Your task to perform on an android device: open chrome and create a bookmark for the current page Image 0: 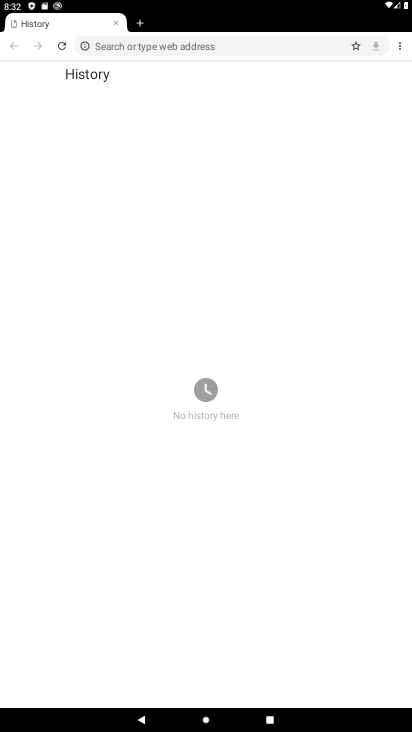
Step 0: drag from (203, 572) to (240, 447)
Your task to perform on an android device: open chrome and create a bookmark for the current page Image 1: 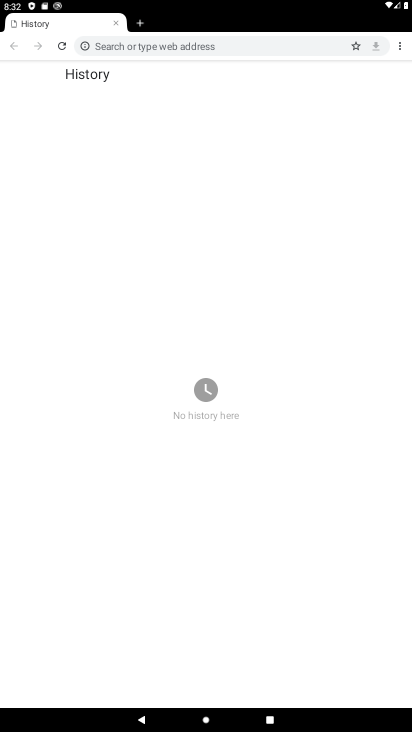
Step 1: press home button
Your task to perform on an android device: open chrome and create a bookmark for the current page Image 2: 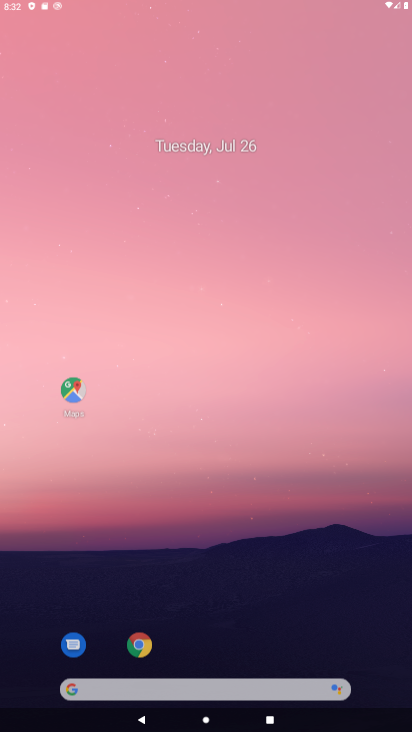
Step 2: drag from (203, 423) to (186, 180)
Your task to perform on an android device: open chrome and create a bookmark for the current page Image 3: 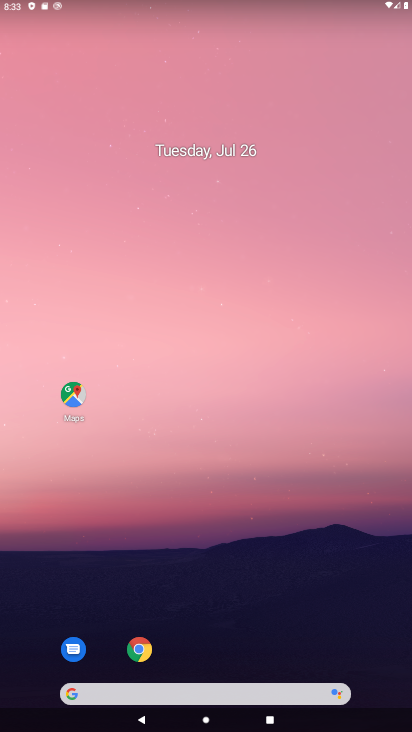
Step 3: drag from (178, 650) to (143, 220)
Your task to perform on an android device: open chrome and create a bookmark for the current page Image 4: 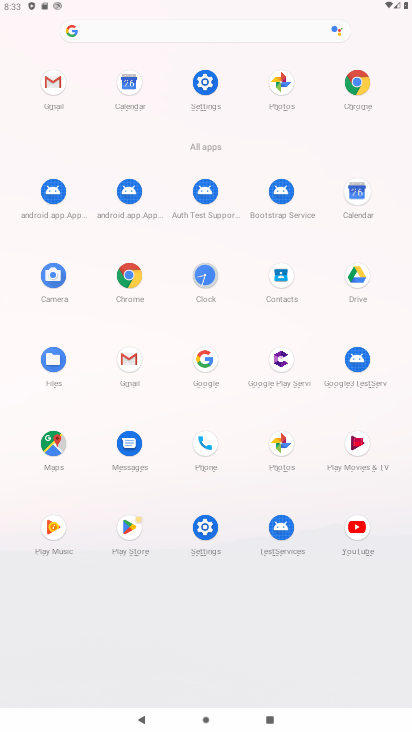
Step 4: click (123, 268)
Your task to perform on an android device: open chrome and create a bookmark for the current page Image 5: 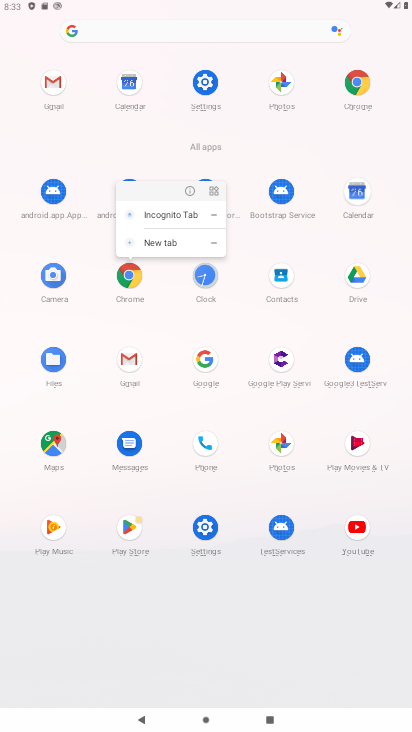
Step 5: click (183, 185)
Your task to perform on an android device: open chrome and create a bookmark for the current page Image 6: 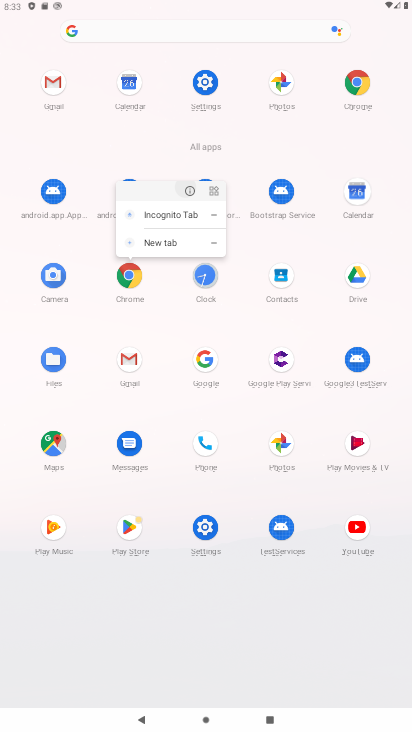
Step 6: click (183, 185)
Your task to perform on an android device: open chrome and create a bookmark for the current page Image 7: 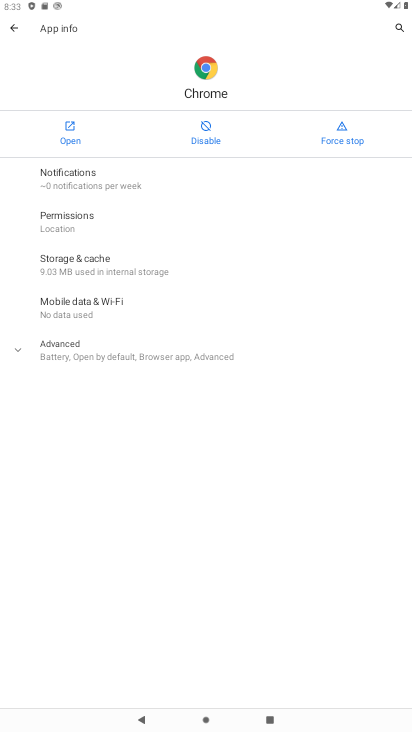
Step 7: click (57, 137)
Your task to perform on an android device: open chrome and create a bookmark for the current page Image 8: 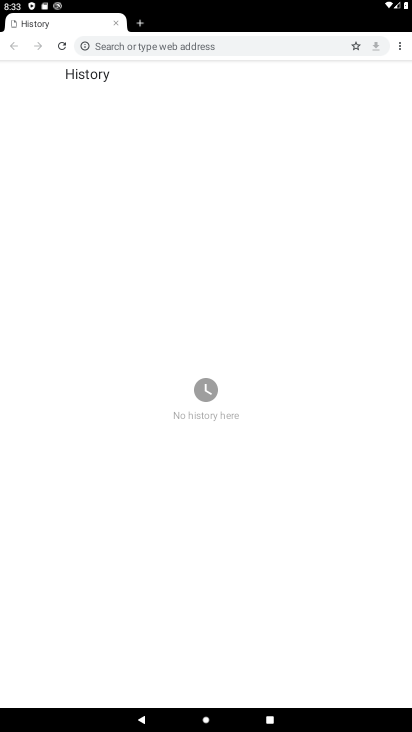
Step 8: drag from (165, 476) to (180, 308)
Your task to perform on an android device: open chrome and create a bookmark for the current page Image 9: 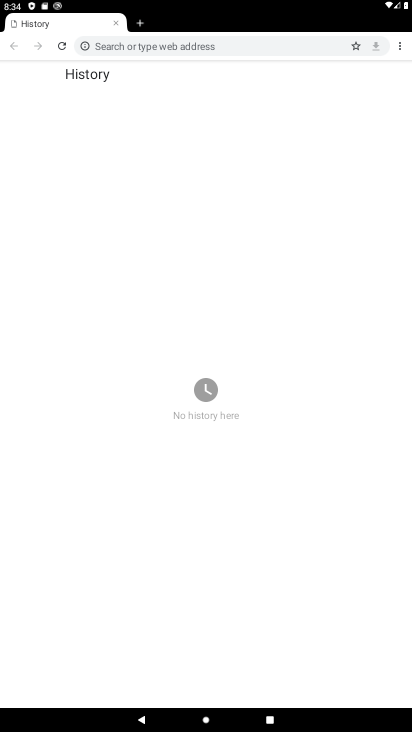
Step 9: click (353, 44)
Your task to perform on an android device: open chrome and create a bookmark for the current page Image 10: 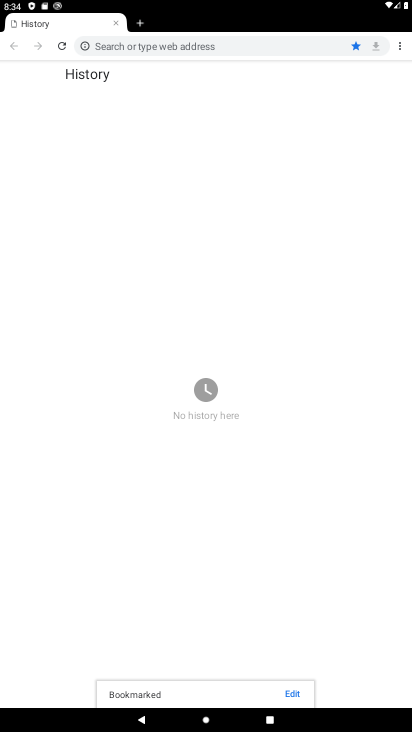
Step 10: task complete